Your task to perform on an android device: all mails in gmail Image 0: 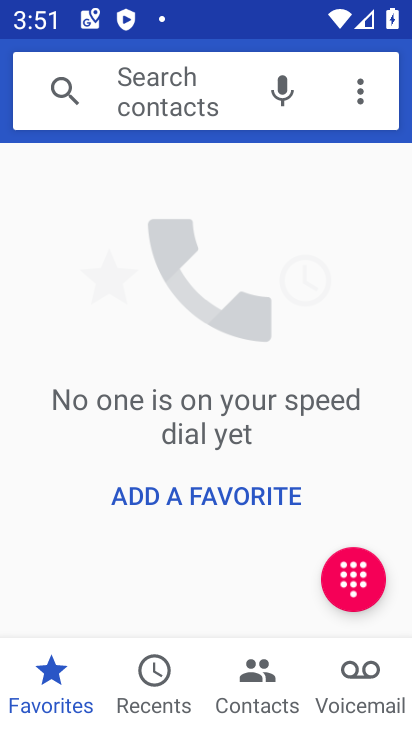
Step 0: press home button
Your task to perform on an android device: all mails in gmail Image 1: 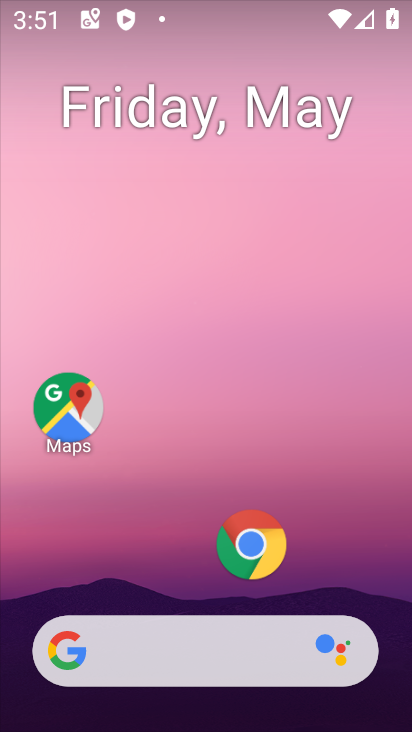
Step 1: drag from (187, 600) to (214, 184)
Your task to perform on an android device: all mails in gmail Image 2: 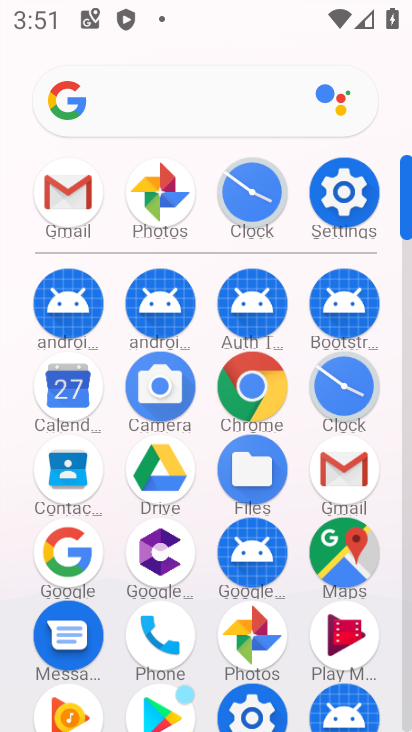
Step 2: click (72, 217)
Your task to perform on an android device: all mails in gmail Image 3: 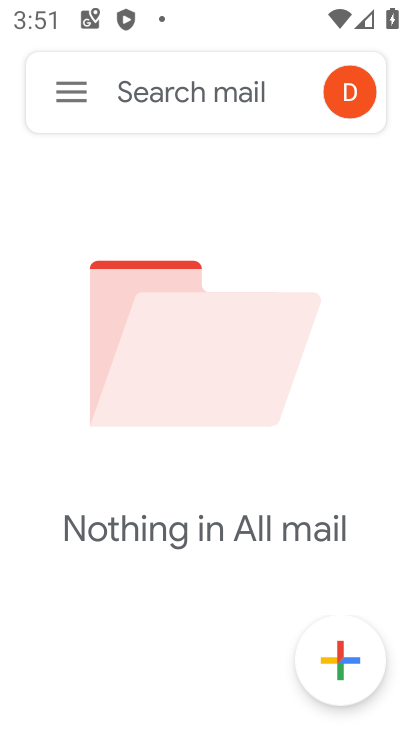
Step 3: click (71, 100)
Your task to perform on an android device: all mails in gmail Image 4: 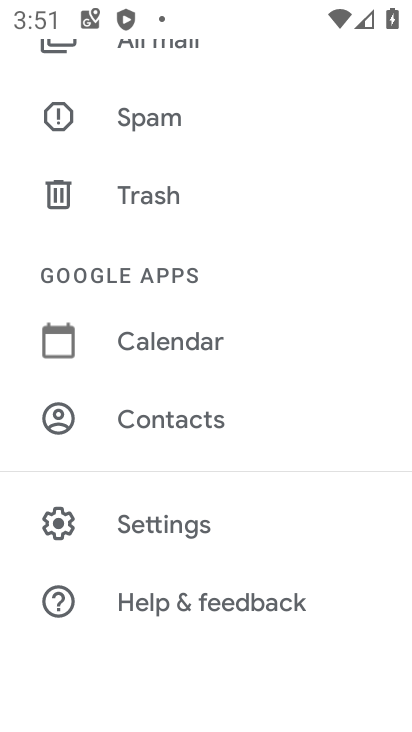
Step 4: drag from (189, 198) to (249, 553)
Your task to perform on an android device: all mails in gmail Image 5: 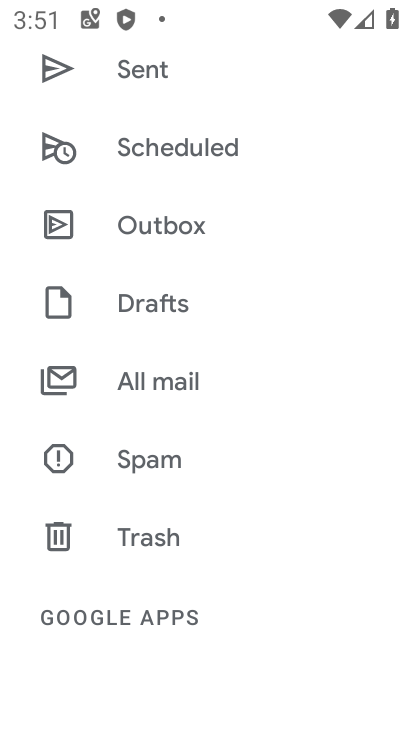
Step 5: click (204, 392)
Your task to perform on an android device: all mails in gmail Image 6: 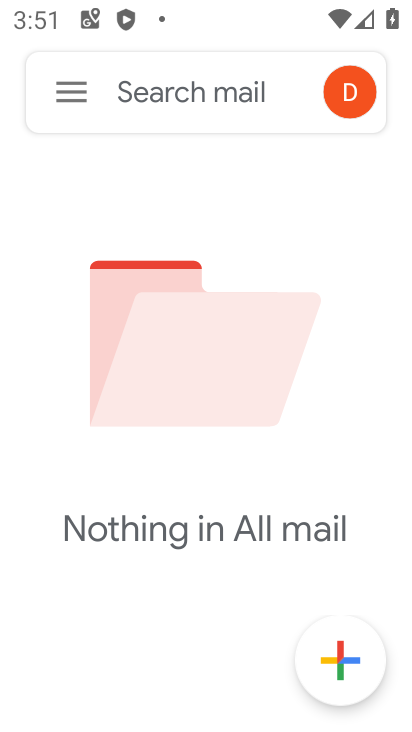
Step 6: task complete